Your task to perform on an android device: open app "Instagram" (install if not already installed) and enter user name: "nobler@yahoo.com" and password: "foraging" Image 0: 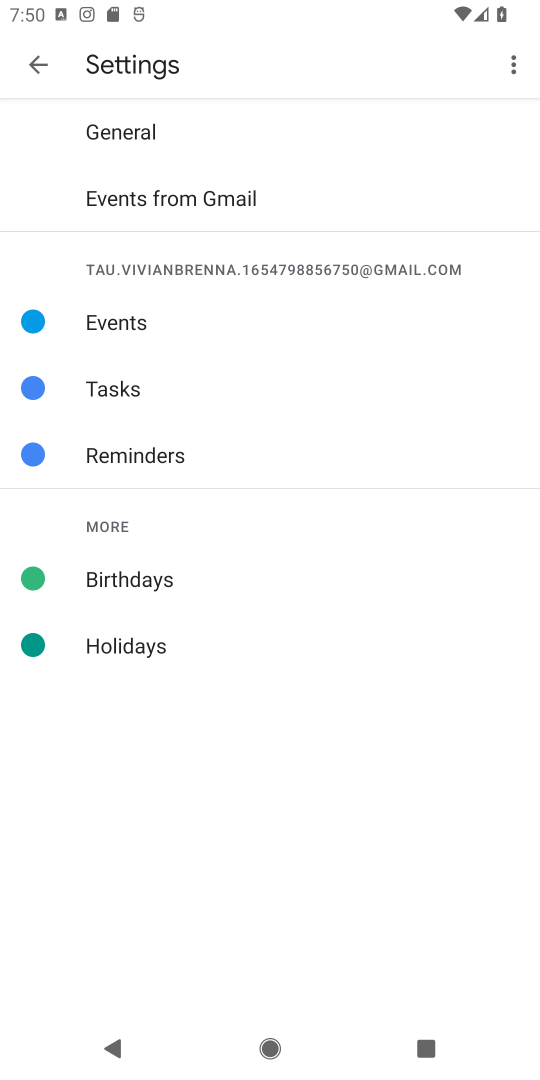
Step 0: press home button
Your task to perform on an android device: open app "Instagram" (install if not already installed) and enter user name: "nobler@yahoo.com" and password: "foraging" Image 1: 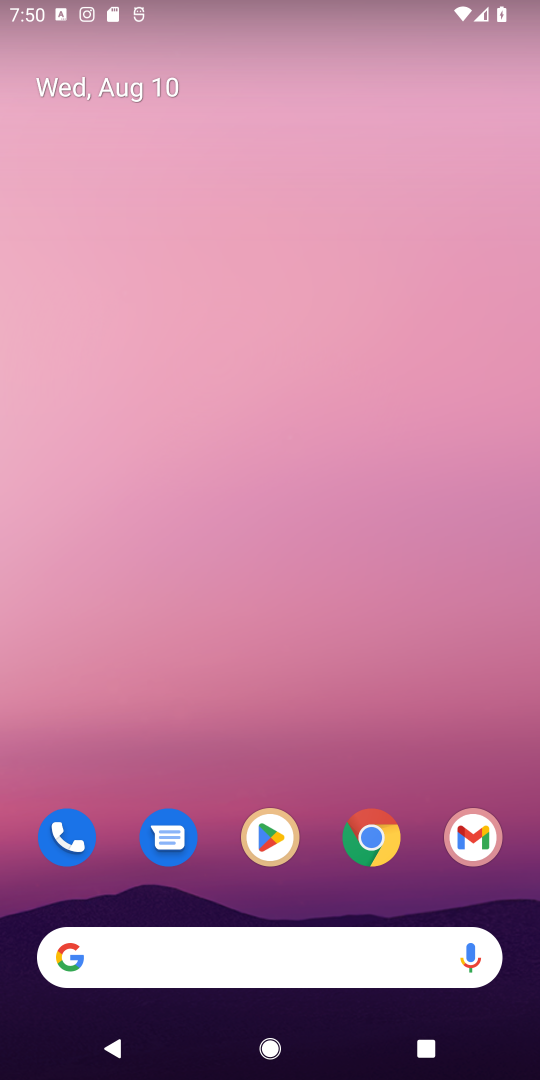
Step 1: click (258, 838)
Your task to perform on an android device: open app "Instagram" (install if not already installed) and enter user name: "nobler@yahoo.com" and password: "foraging" Image 2: 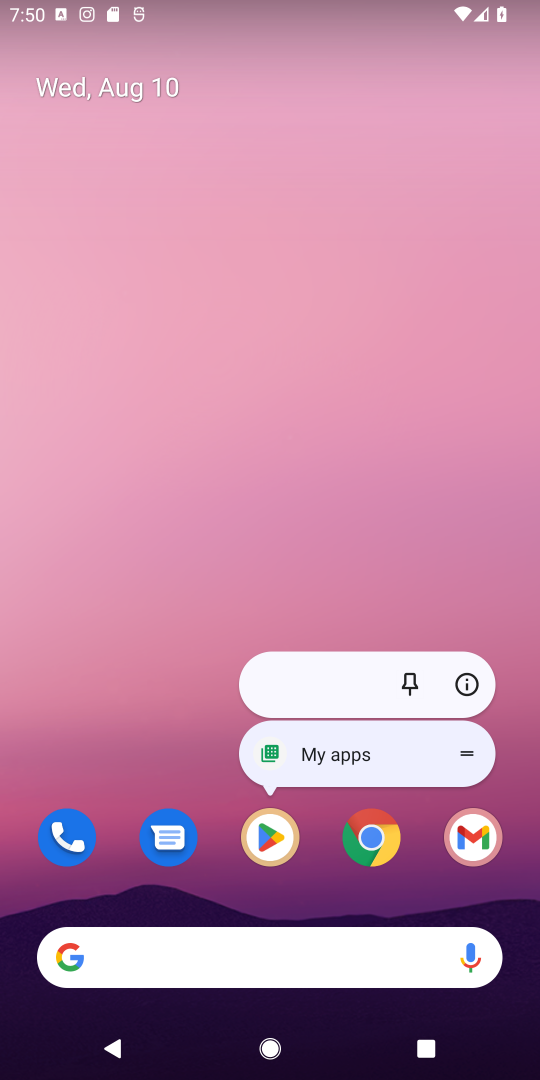
Step 2: click (259, 837)
Your task to perform on an android device: open app "Instagram" (install if not already installed) and enter user name: "nobler@yahoo.com" and password: "foraging" Image 3: 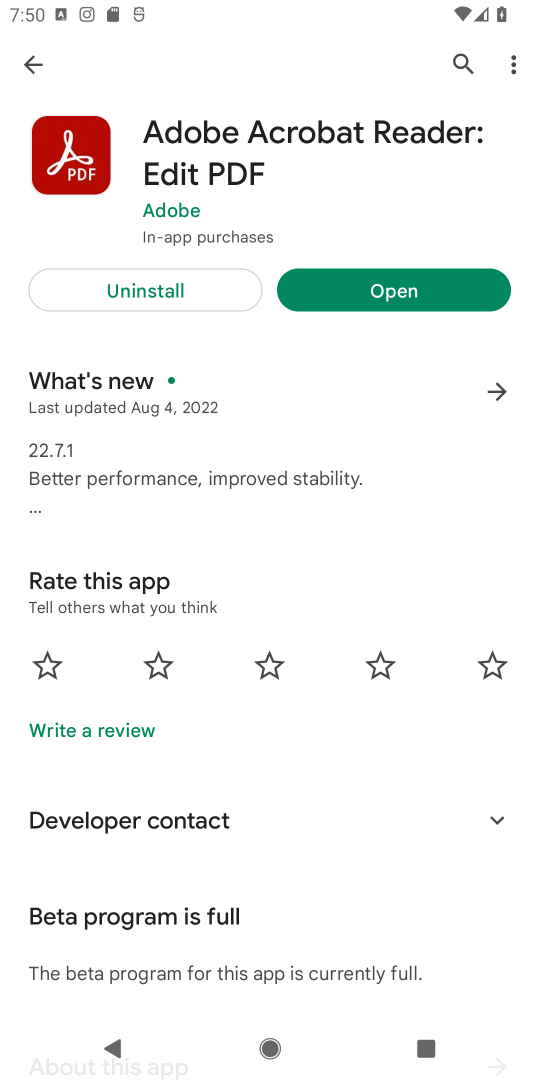
Step 3: click (462, 68)
Your task to perform on an android device: open app "Instagram" (install if not already installed) and enter user name: "nobler@yahoo.com" and password: "foraging" Image 4: 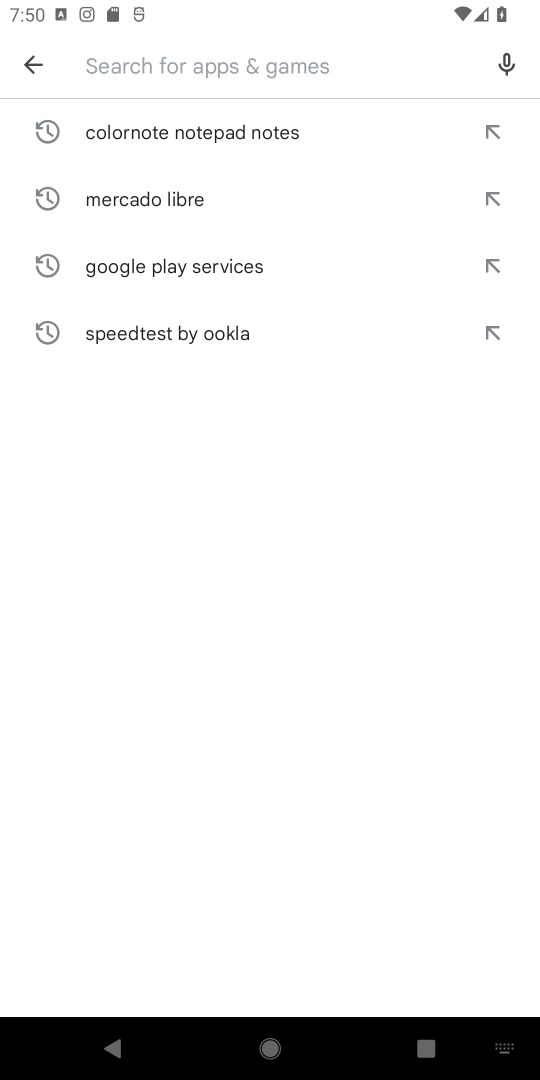
Step 4: type "Instagram"
Your task to perform on an android device: open app "Instagram" (install if not already installed) and enter user name: "nobler@yahoo.com" and password: "foraging" Image 5: 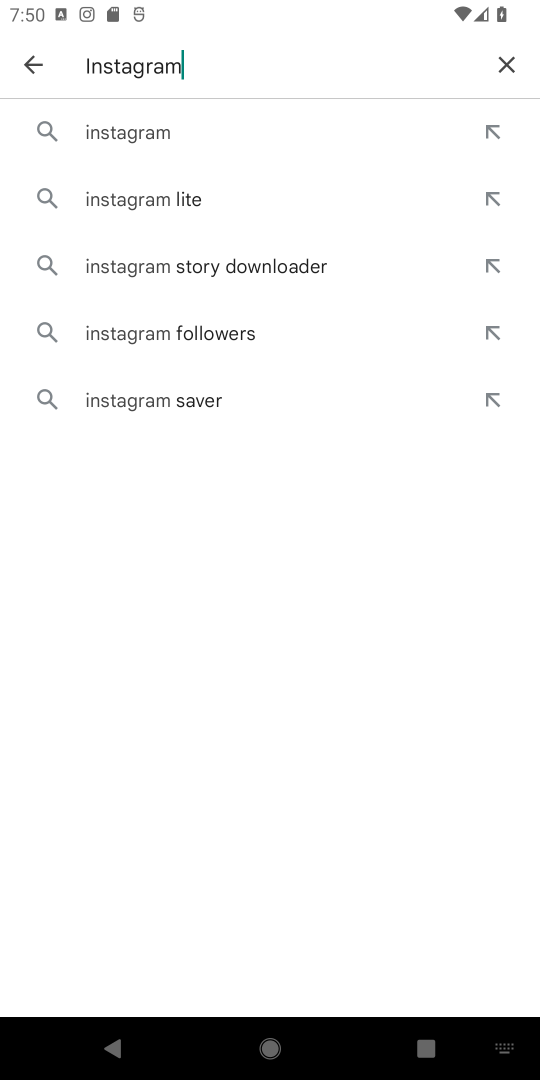
Step 5: click (133, 125)
Your task to perform on an android device: open app "Instagram" (install if not already installed) and enter user name: "nobler@yahoo.com" and password: "foraging" Image 6: 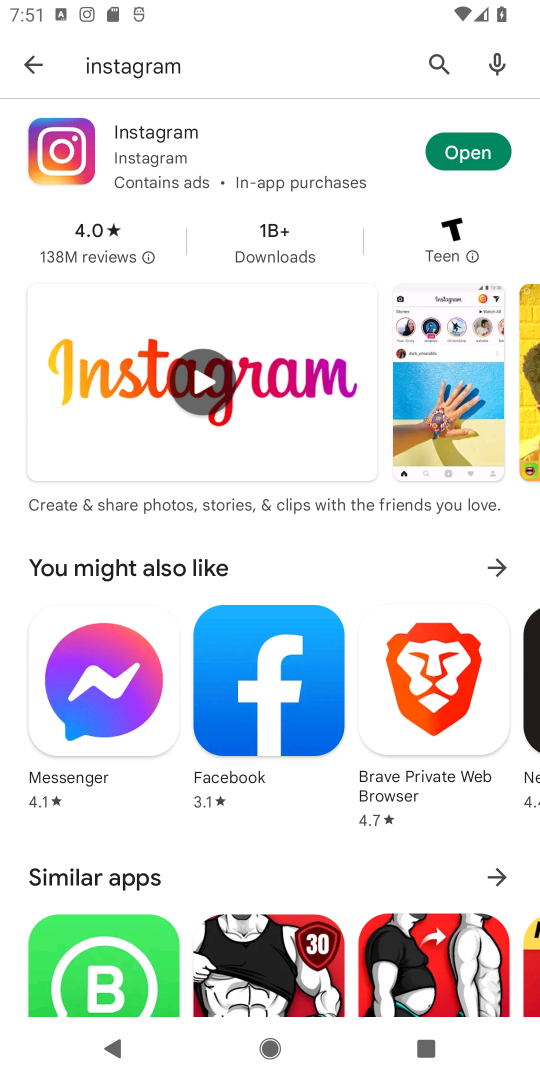
Step 6: click (451, 150)
Your task to perform on an android device: open app "Instagram" (install if not already installed) and enter user name: "nobler@yahoo.com" and password: "foraging" Image 7: 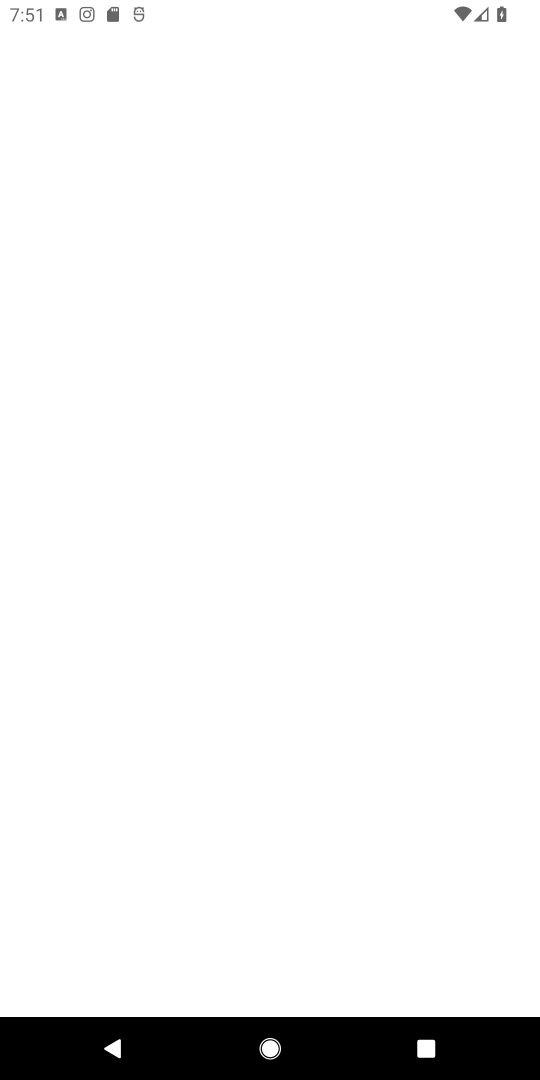
Step 7: task complete